Your task to perform on an android device: turn on sleep mode Image 0: 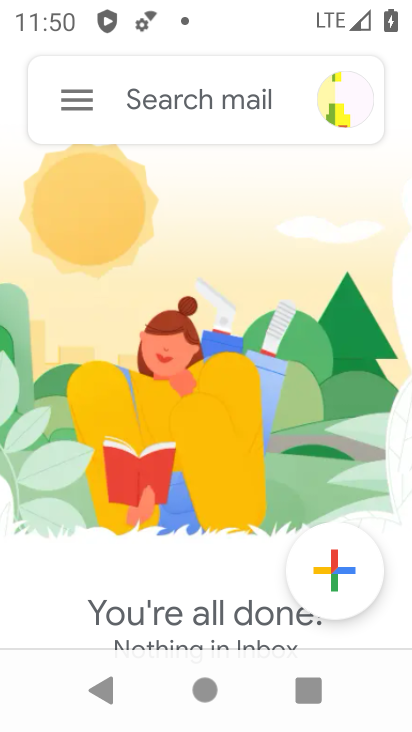
Step 0: press home button
Your task to perform on an android device: turn on sleep mode Image 1: 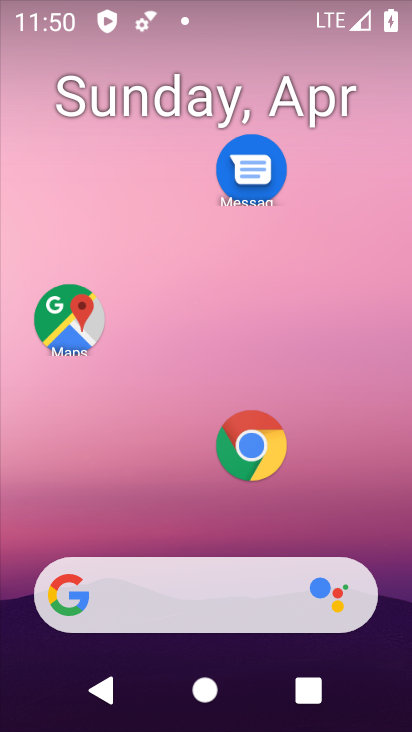
Step 1: drag from (182, 519) to (295, 94)
Your task to perform on an android device: turn on sleep mode Image 2: 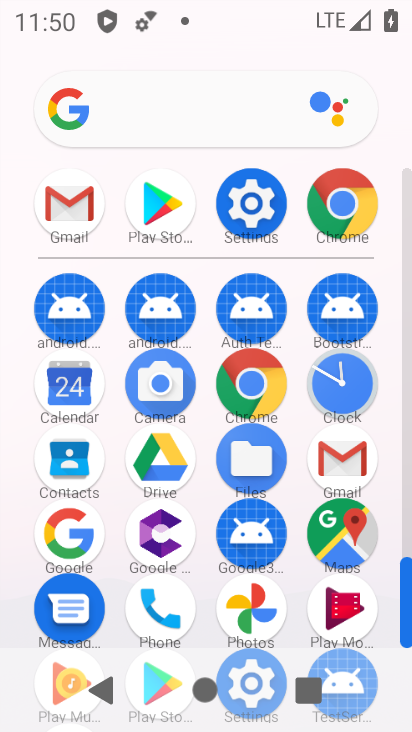
Step 2: click (257, 204)
Your task to perform on an android device: turn on sleep mode Image 3: 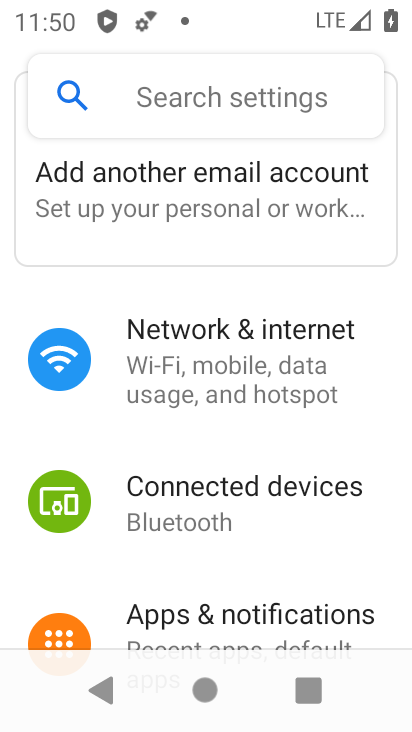
Step 3: drag from (253, 560) to (330, 229)
Your task to perform on an android device: turn on sleep mode Image 4: 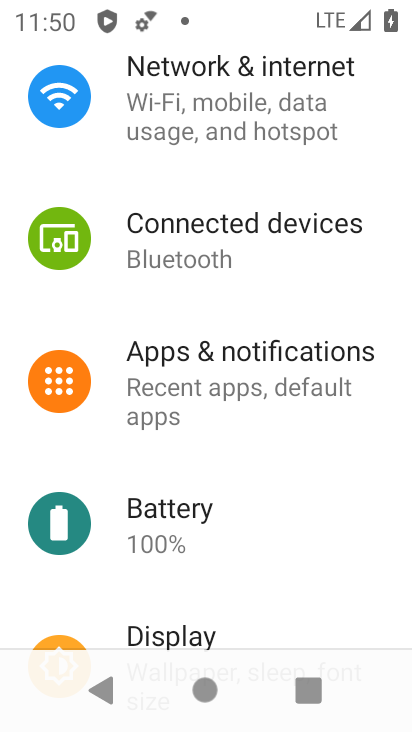
Step 4: drag from (243, 564) to (329, 180)
Your task to perform on an android device: turn on sleep mode Image 5: 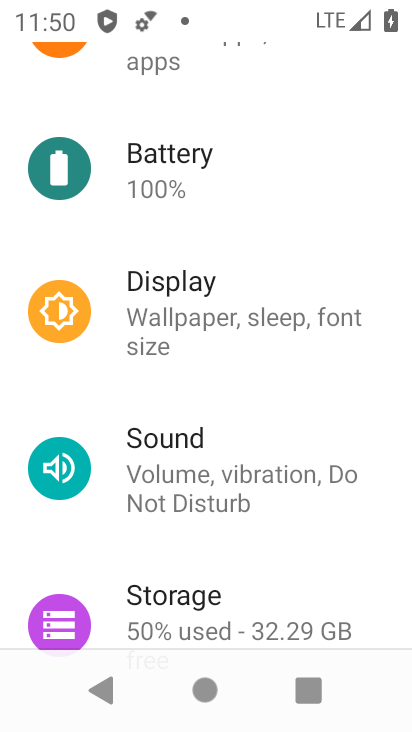
Step 5: click (206, 317)
Your task to perform on an android device: turn on sleep mode Image 6: 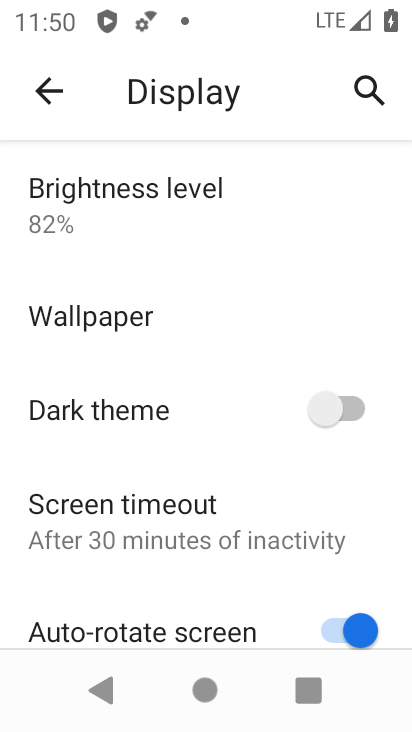
Step 6: drag from (168, 602) to (336, 171)
Your task to perform on an android device: turn on sleep mode Image 7: 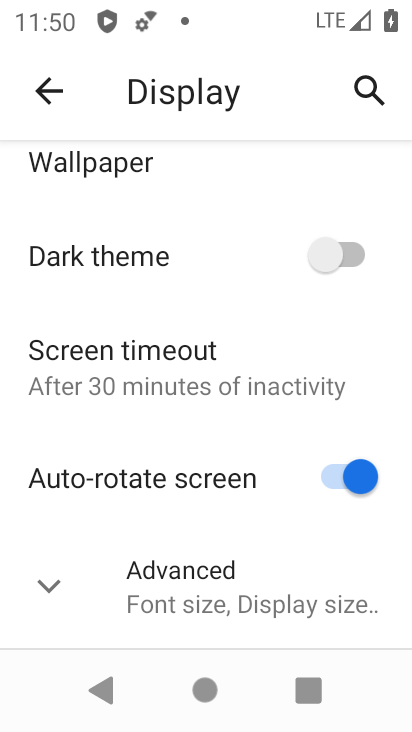
Step 7: click (109, 583)
Your task to perform on an android device: turn on sleep mode Image 8: 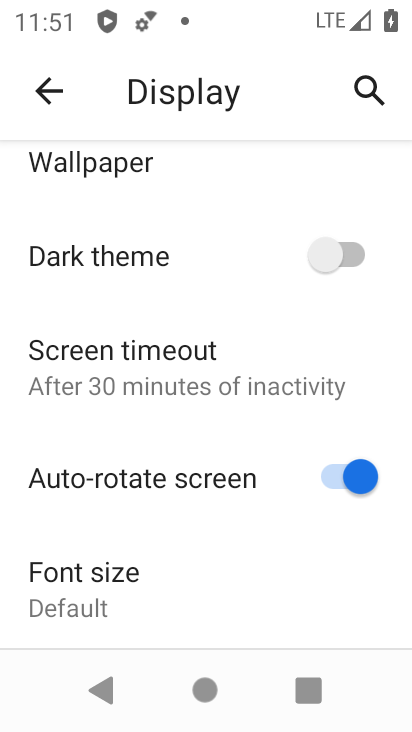
Step 8: task complete